Your task to perform on an android device: Open network settings Image 0: 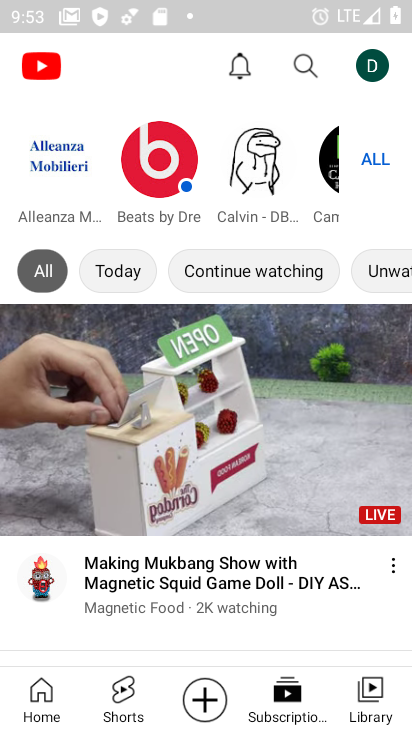
Step 0: press home button
Your task to perform on an android device: Open network settings Image 1: 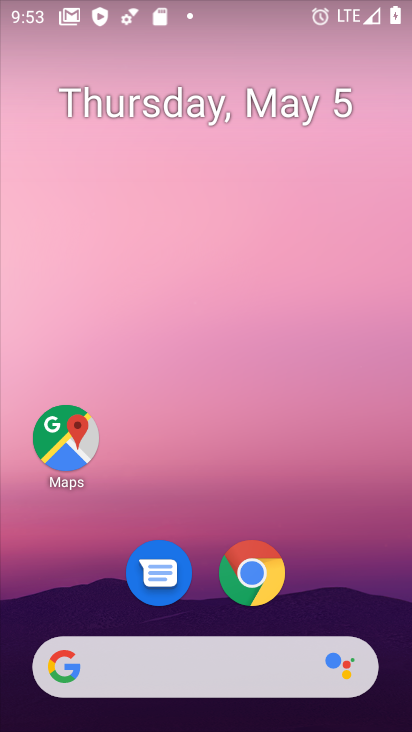
Step 1: drag from (130, 557) to (252, 56)
Your task to perform on an android device: Open network settings Image 2: 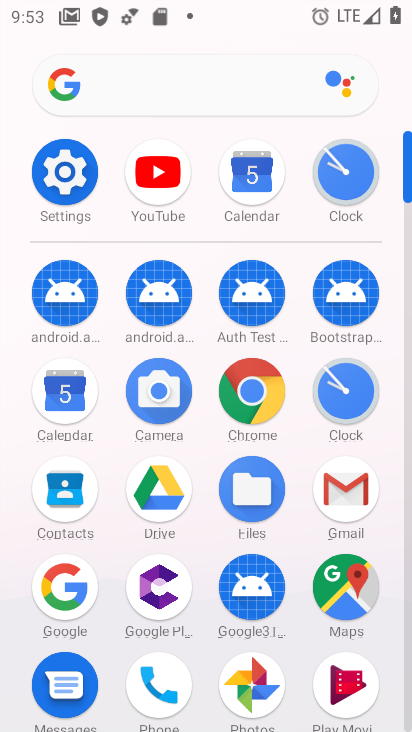
Step 2: click (58, 153)
Your task to perform on an android device: Open network settings Image 3: 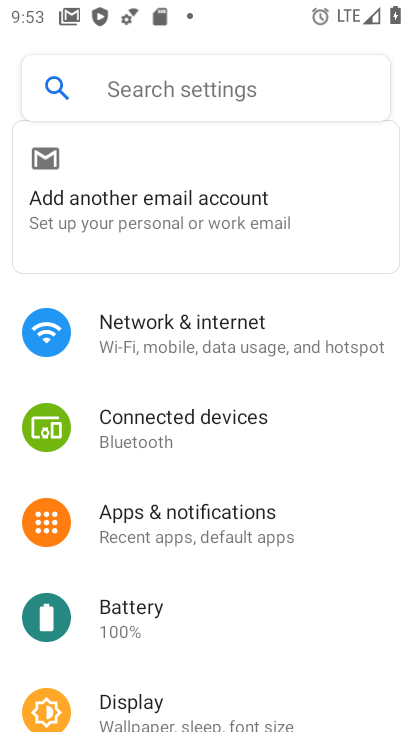
Step 3: click (162, 340)
Your task to perform on an android device: Open network settings Image 4: 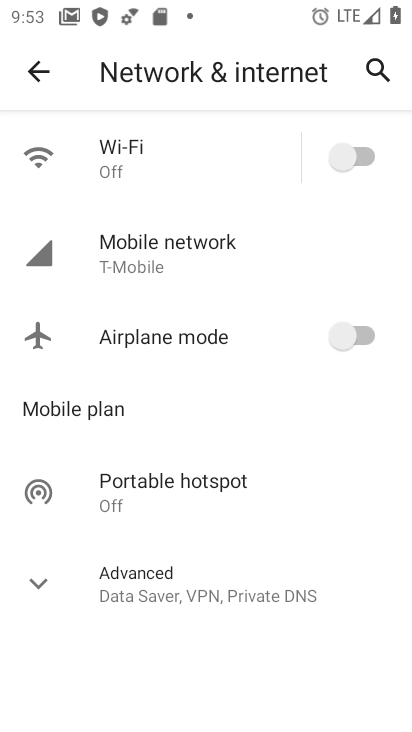
Step 4: task complete